Your task to perform on an android device: turn on data saver in the chrome app Image 0: 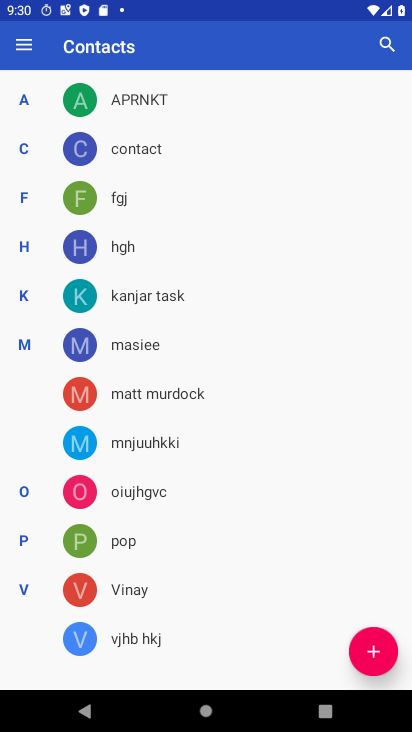
Step 0: press home button
Your task to perform on an android device: turn on data saver in the chrome app Image 1: 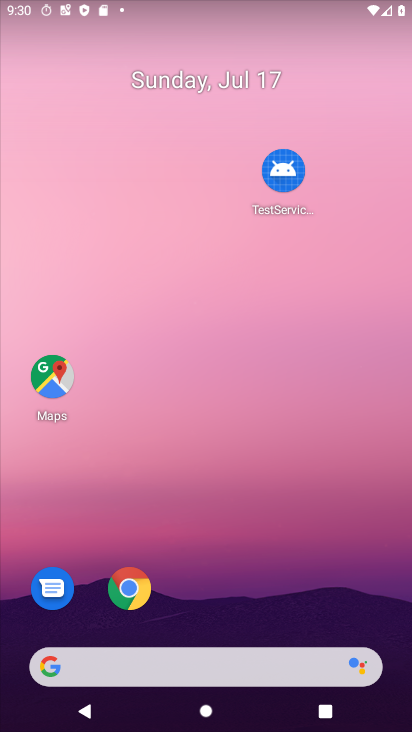
Step 1: drag from (236, 571) to (319, 56)
Your task to perform on an android device: turn on data saver in the chrome app Image 2: 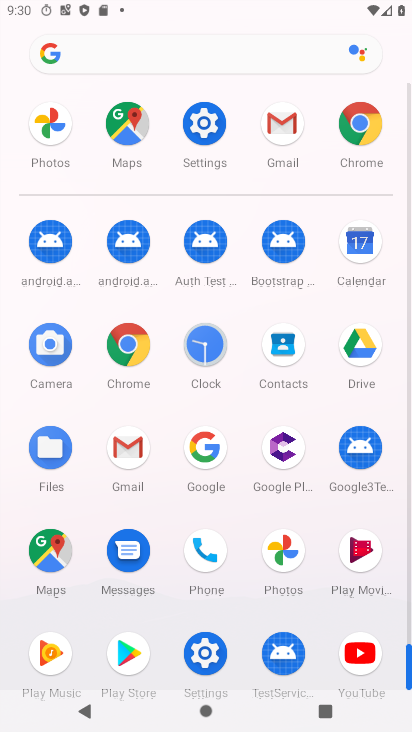
Step 2: click (354, 150)
Your task to perform on an android device: turn on data saver in the chrome app Image 3: 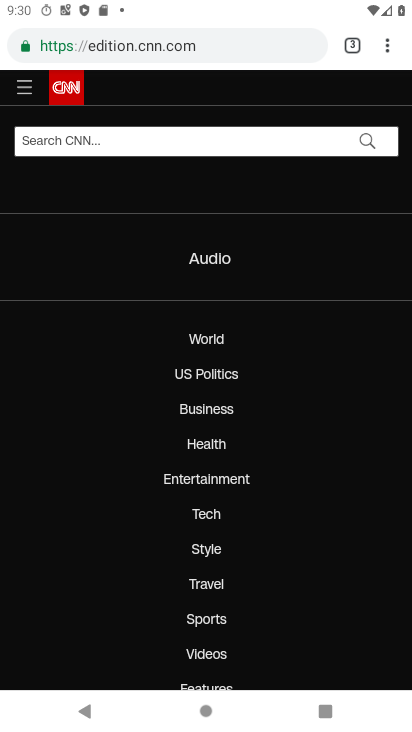
Step 3: click (382, 52)
Your task to perform on an android device: turn on data saver in the chrome app Image 4: 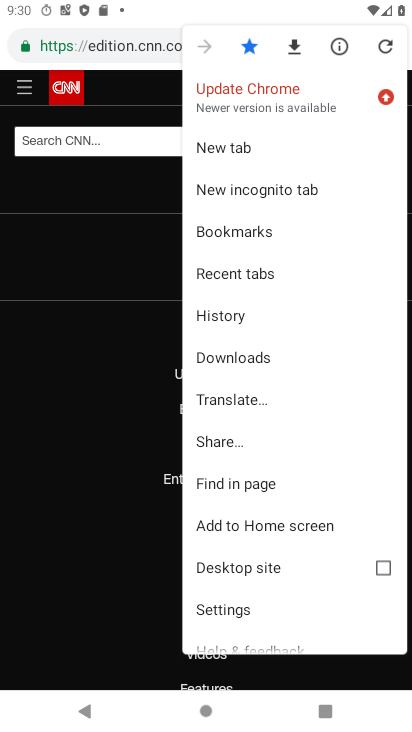
Step 4: click (263, 613)
Your task to perform on an android device: turn on data saver in the chrome app Image 5: 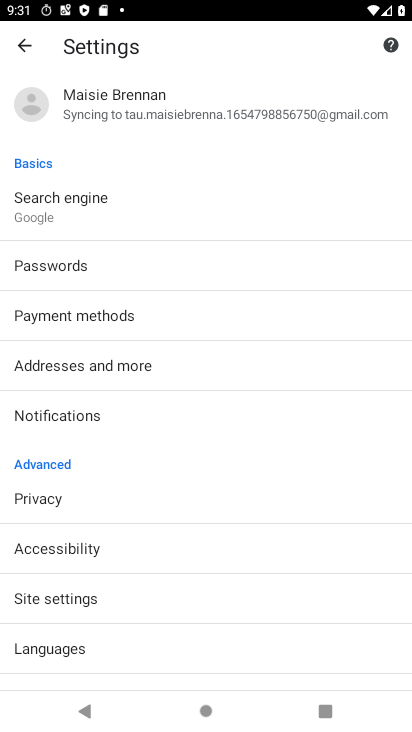
Step 5: drag from (83, 634) to (170, 274)
Your task to perform on an android device: turn on data saver in the chrome app Image 6: 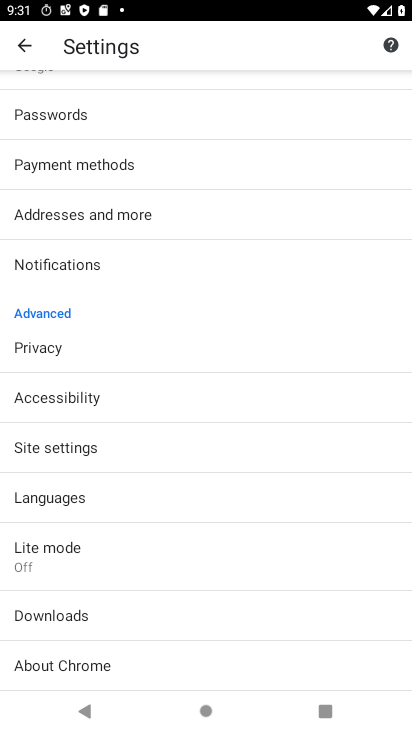
Step 6: click (70, 564)
Your task to perform on an android device: turn on data saver in the chrome app Image 7: 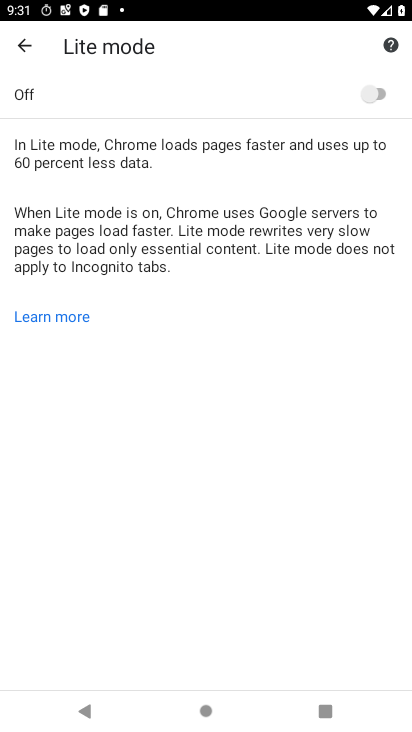
Step 7: click (384, 97)
Your task to perform on an android device: turn on data saver in the chrome app Image 8: 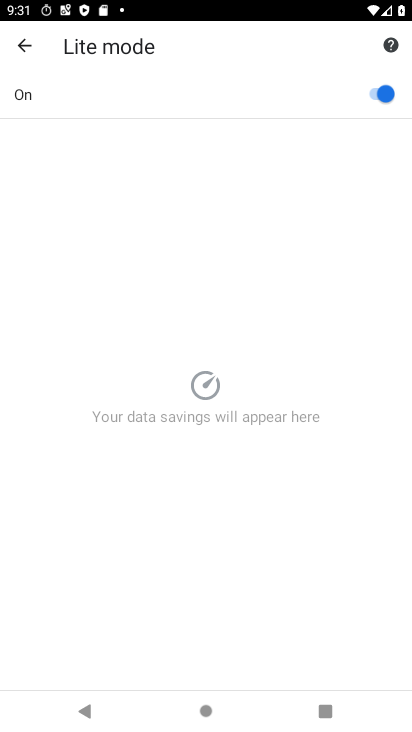
Step 8: task complete